Your task to perform on an android device: star an email in the gmail app Image 0: 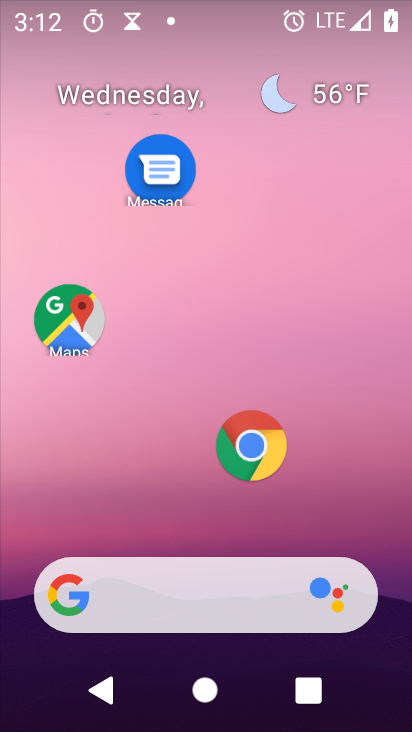
Step 0: click (372, 284)
Your task to perform on an android device: star an email in the gmail app Image 1: 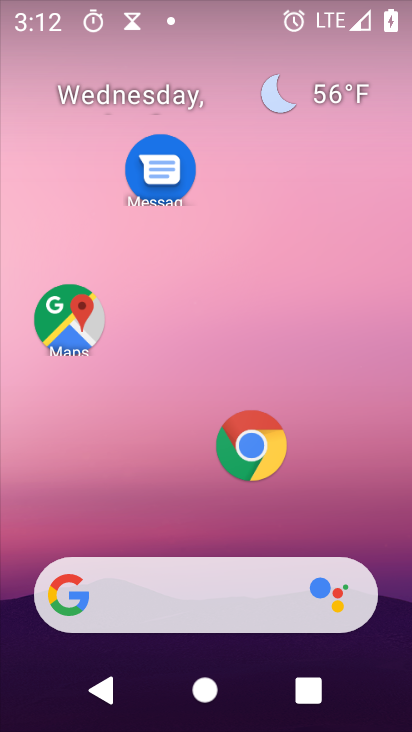
Step 1: drag from (68, 528) to (290, 154)
Your task to perform on an android device: star an email in the gmail app Image 2: 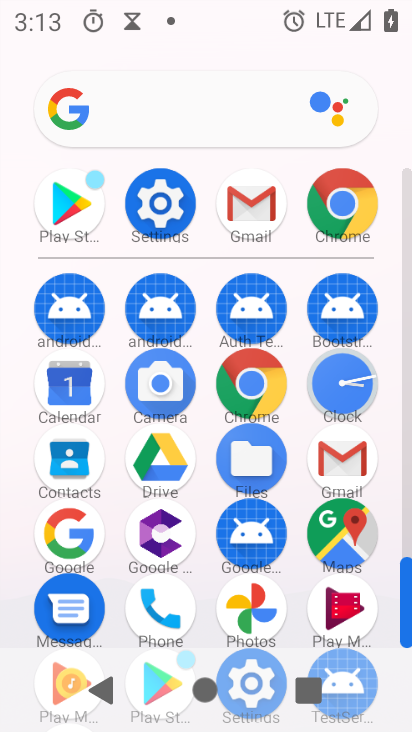
Step 2: click (331, 486)
Your task to perform on an android device: star an email in the gmail app Image 3: 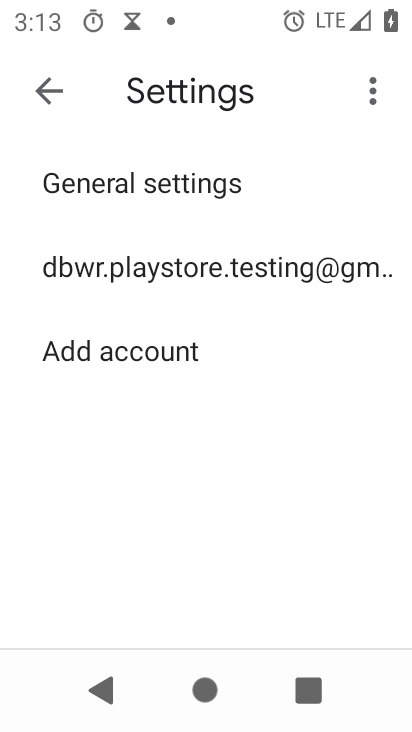
Step 3: click (43, 101)
Your task to perform on an android device: star an email in the gmail app Image 4: 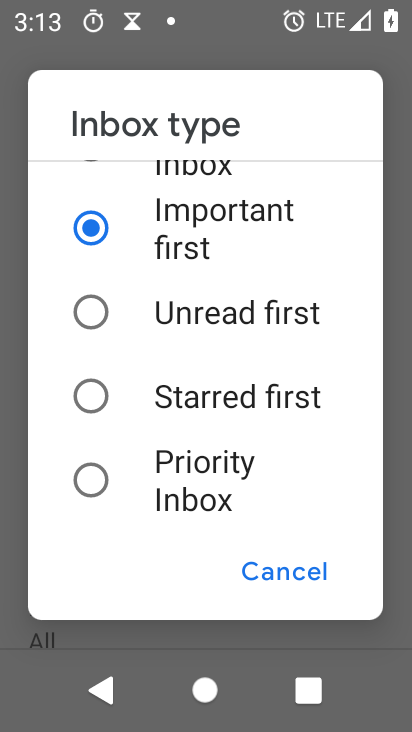
Step 4: click (311, 573)
Your task to perform on an android device: star an email in the gmail app Image 5: 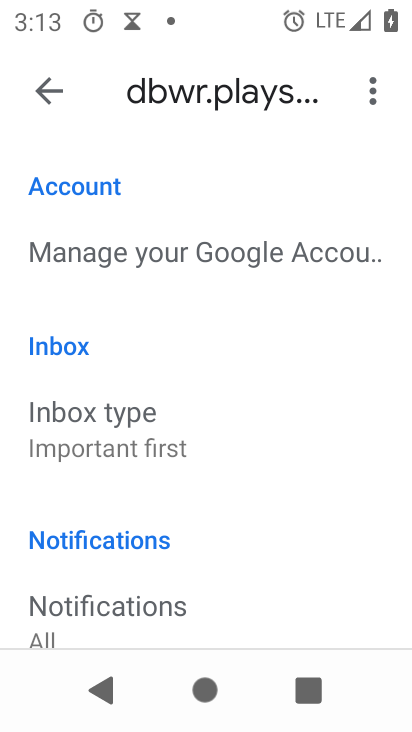
Step 5: click (43, 86)
Your task to perform on an android device: star an email in the gmail app Image 6: 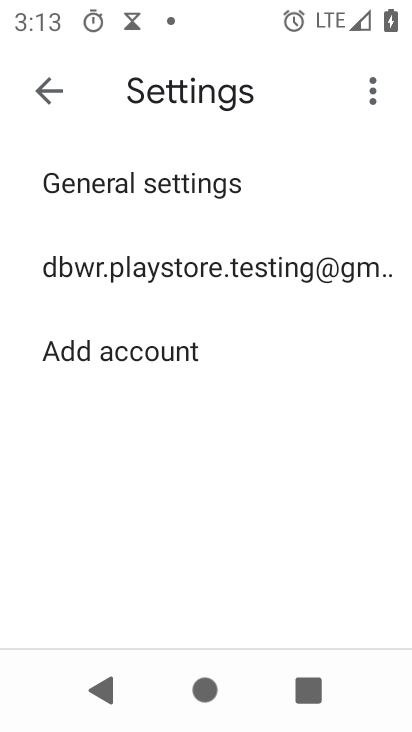
Step 6: click (38, 77)
Your task to perform on an android device: star an email in the gmail app Image 7: 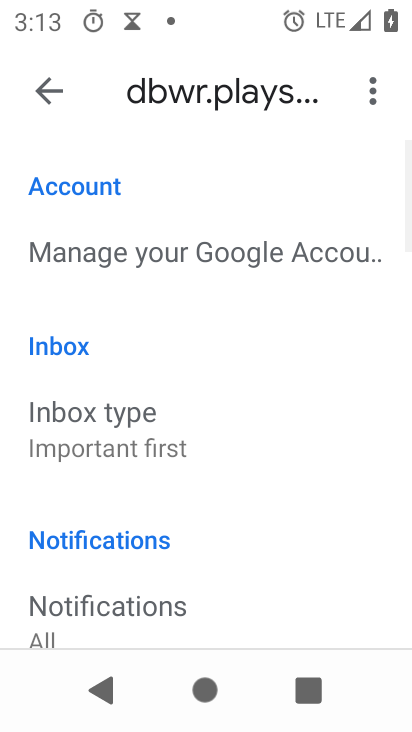
Step 7: click (41, 83)
Your task to perform on an android device: star an email in the gmail app Image 8: 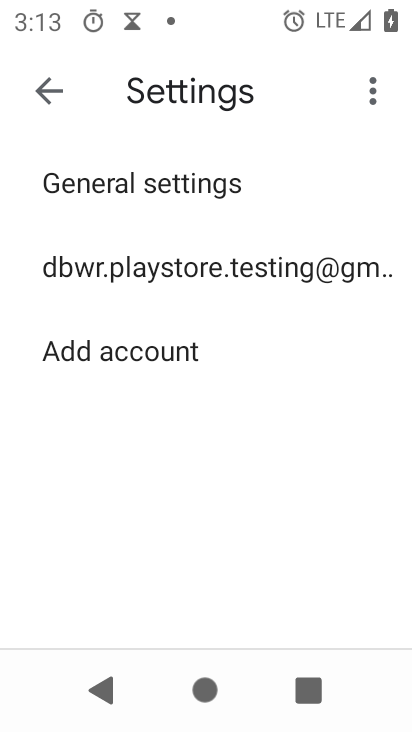
Step 8: click (41, 82)
Your task to perform on an android device: star an email in the gmail app Image 9: 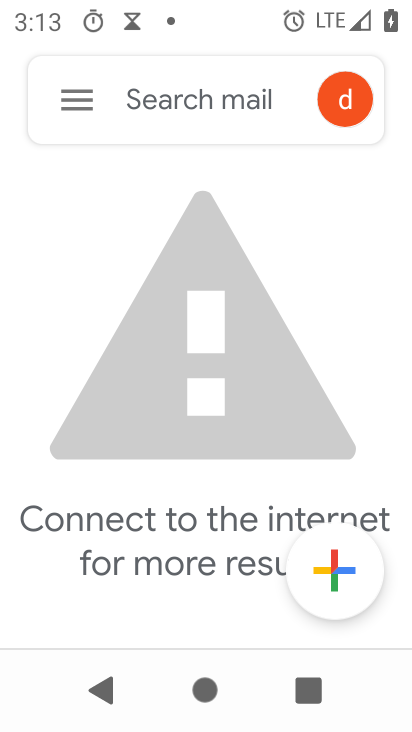
Step 9: click (74, 98)
Your task to perform on an android device: star an email in the gmail app Image 10: 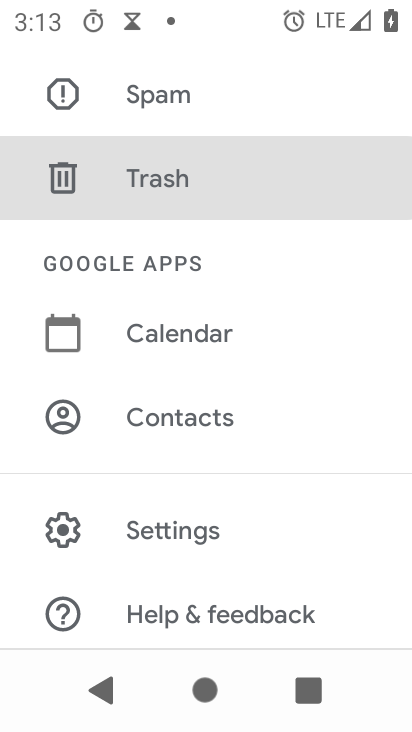
Step 10: drag from (172, 115) to (196, 596)
Your task to perform on an android device: star an email in the gmail app Image 11: 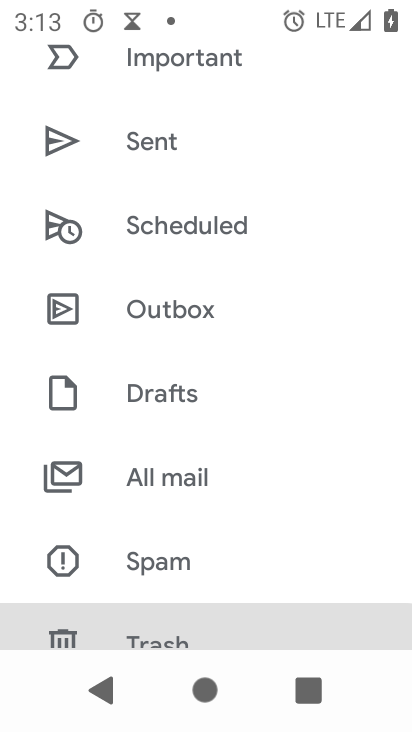
Step 11: click (170, 472)
Your task to perform on an android device: star an email in the gmail app Image 12: 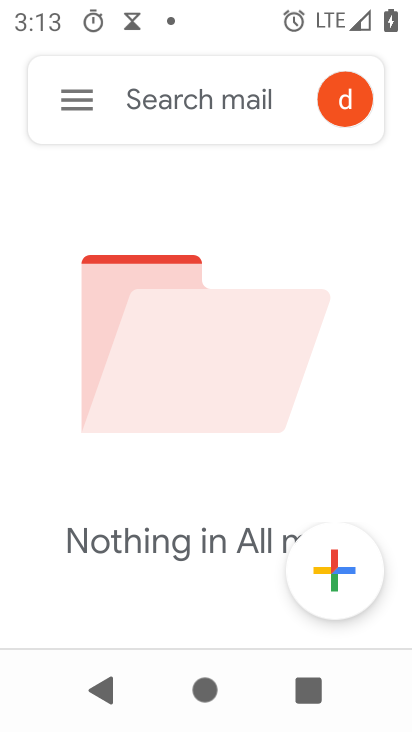
Step 12: task complete